Your task to perform on an android device: check out phone information Image 0: 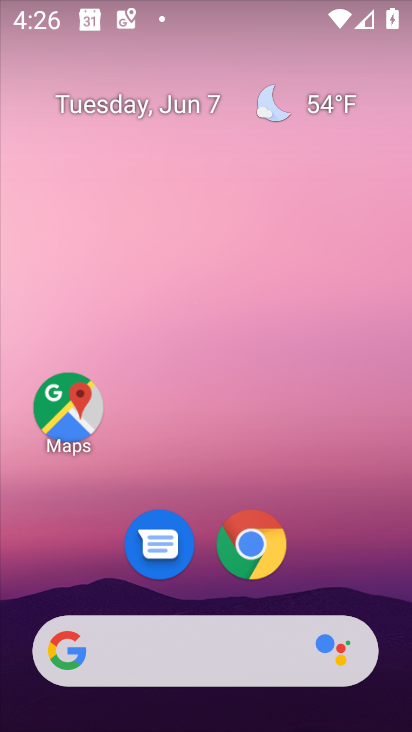
Step 0: task complete